Your task to perform on an android device: Open calendar and show me the fourth week of next month Image 0: 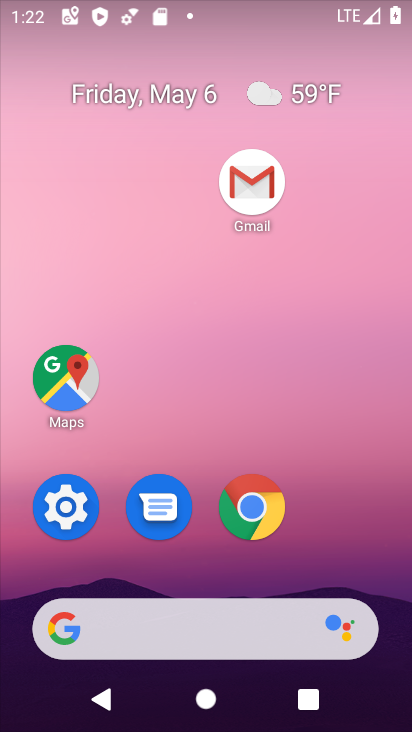
Step 0: drag from (345, 538) to (323, 25)
Your task to perform on an android device: Open calendar and show me the fourth week of next month Image 1: 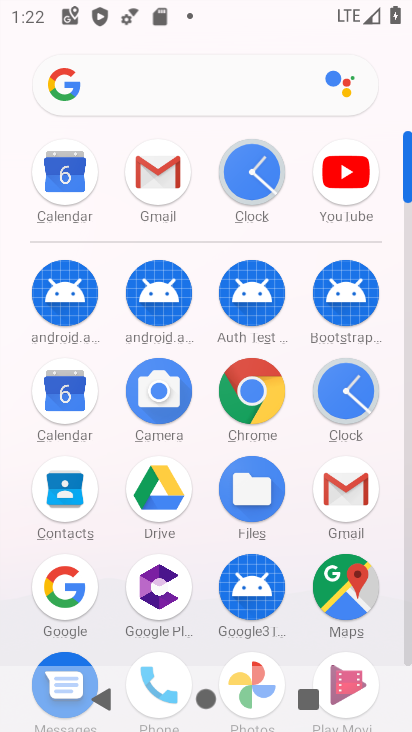
Step 1: click (70, 395)
Your task to perform on an android device: Open calendar and show me the fourth week of next month Image 2: 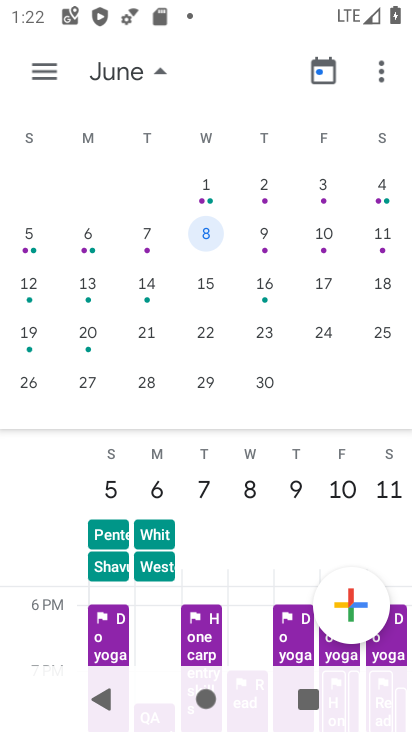
Step 2: click (207, 329)
Your task to perform on an android device: Open calendar and show me the fourth week of next month Image 3: 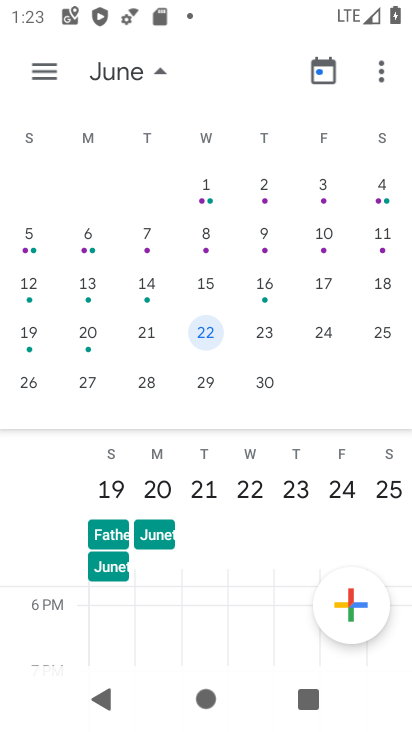
Step 3: task complete